Your task to perform on an android device: Go to Yahoo.com Image 0: 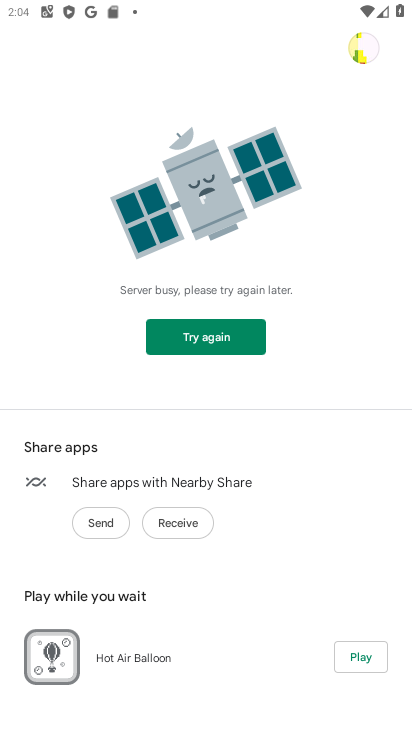
Step 0: press home button
Your task to perform on an android device: Go to Yahoo.com Image 1: 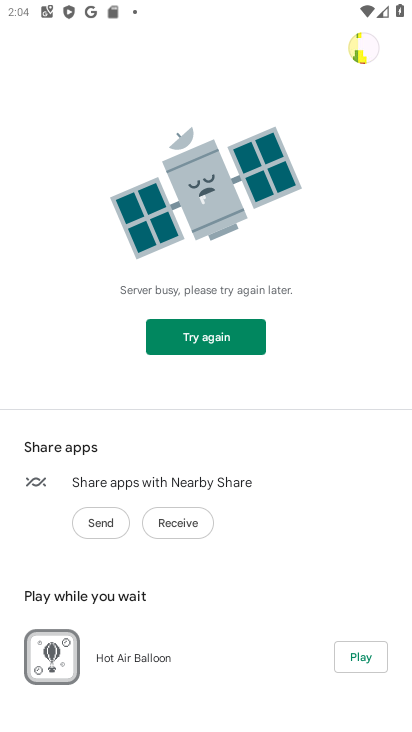
Step 1: press home button
Your task to perform on an android device: Go to Yahoo.com Image 2: 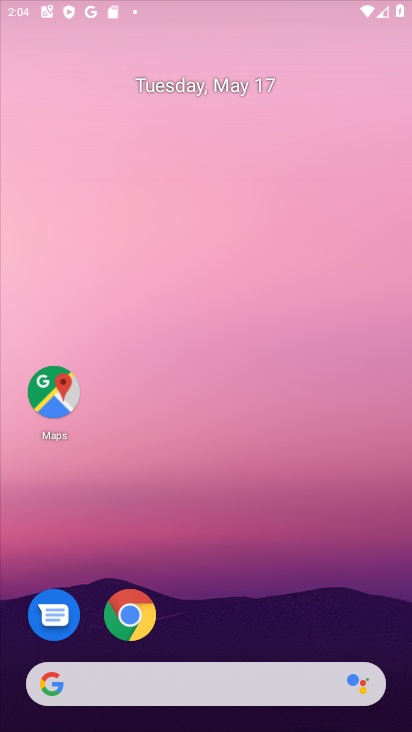
Step 2: press home button
Your task to perform on an android device: Go to Yahoo.com Image 3: 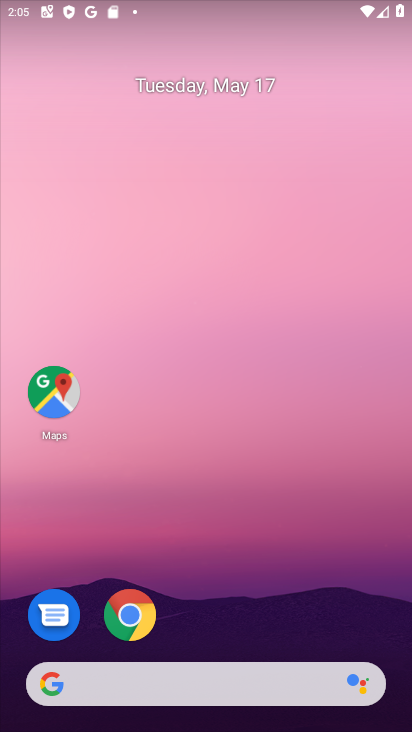
Step 3: click (156, 621)
Your task to perform on an android device: Go to Yahoo.com Image 4: 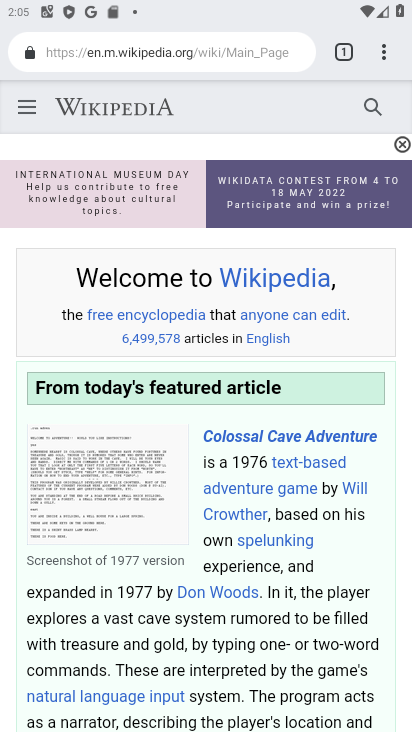
Step 4: click (171, 48)
Your task to perform on an android device: Go to Yahoo.com Image 5: 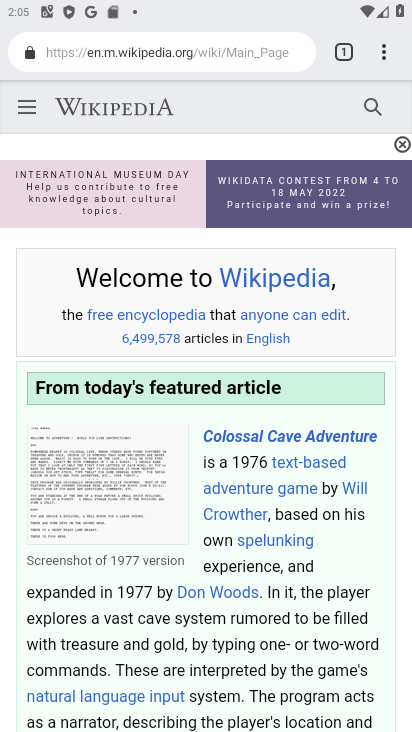
Step 5: click (171, 48)
Your task to perform on an android device: Go to Yahoo.com Image 6: 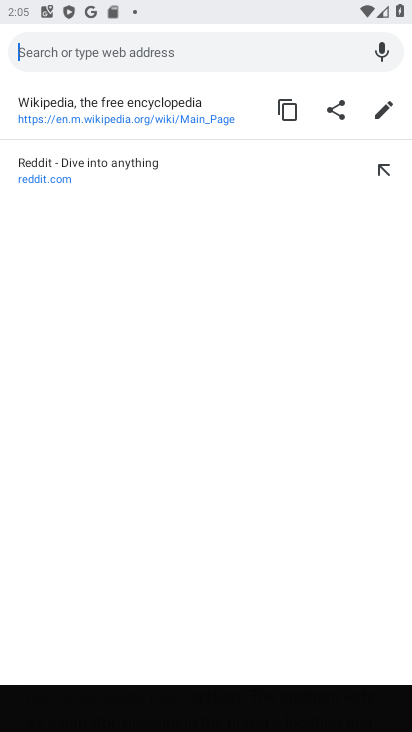
Step 6: click (171, 48)
Your task to perform on an android device: Go to Yahoo.com Image 7: 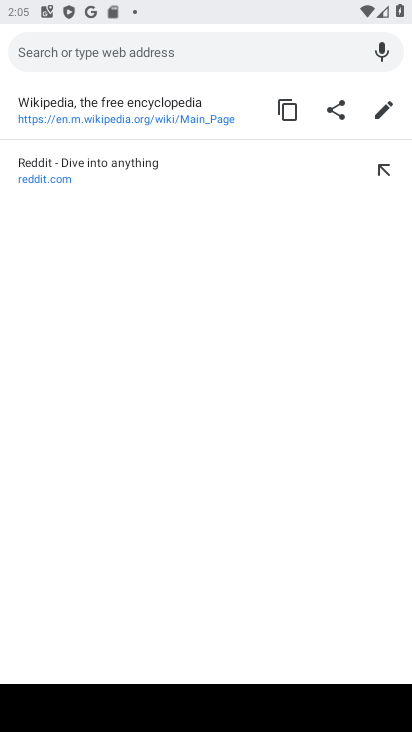
Step 7: type "Yahoo.com"
Your task to perform on an android device: Go to Yahoo.com Image 8: 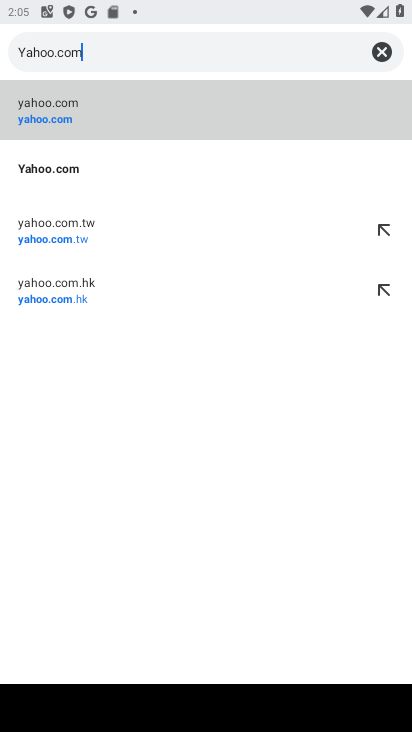
Step 8: click (101, 91)
Your task to perform on an android device: Go to Yahoo.com Image 9: 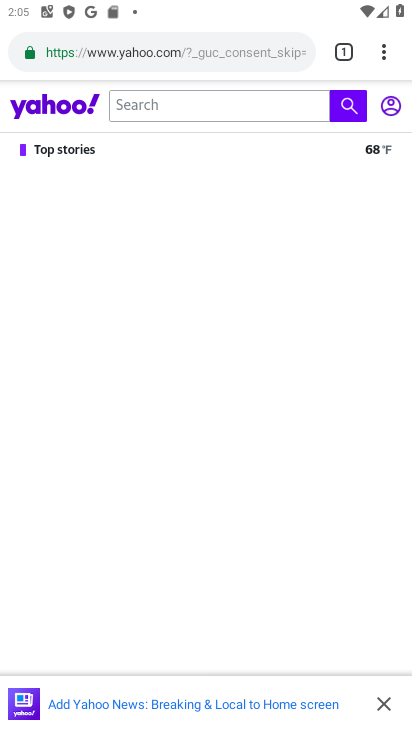
Step 9: task complete